Your task to perform on an android device: Go to Reddit.com Image 0: 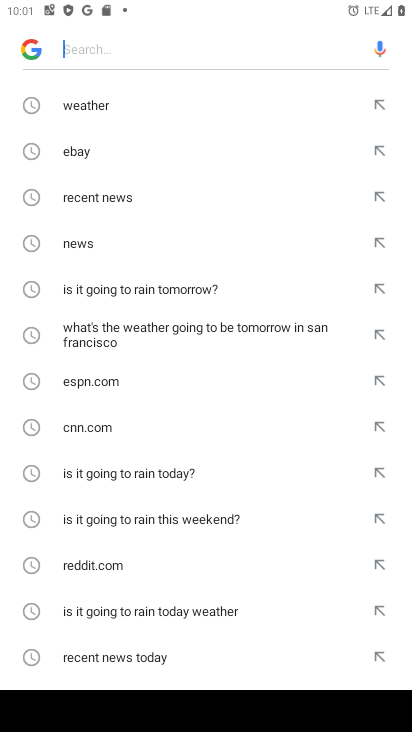
Step 0: press home button
Your task to perform on an android device: Go to Reddit.com Image 1: 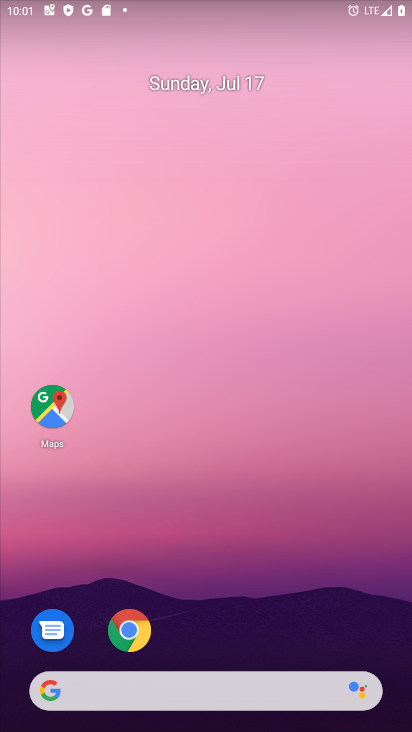
Step 1: drag from (233, 644) to (281, 87)
Your task to perform on an android device: Go to Reddit.com Image 2: 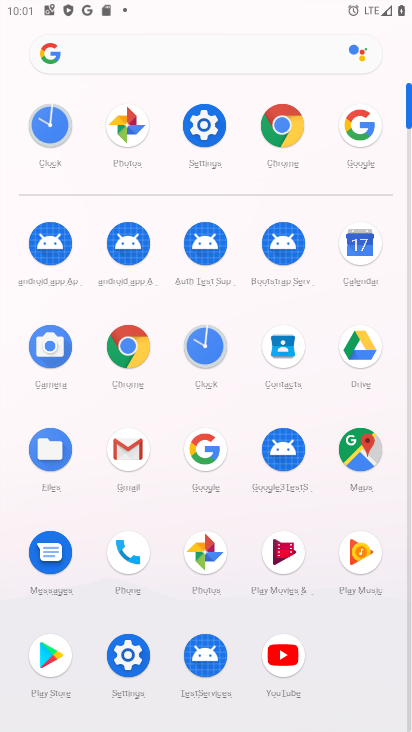
Step 2: click (279, 118)
Your task to perform on an android device: Go to Reddit.com Image 3: 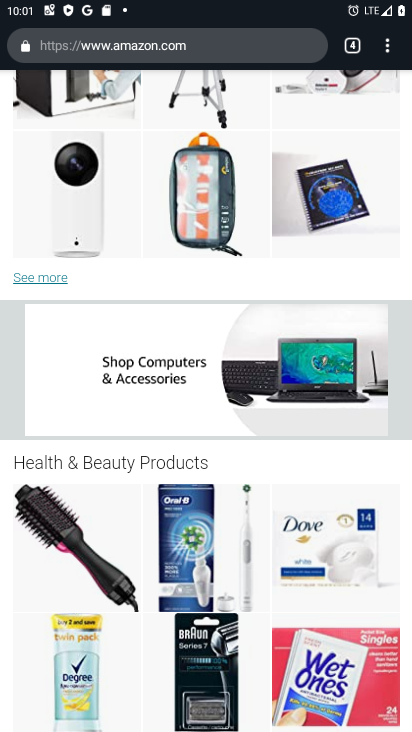
Step 3: click (351, 43)
Your task to perform on an android device: Go to Reddit.com Image 4: 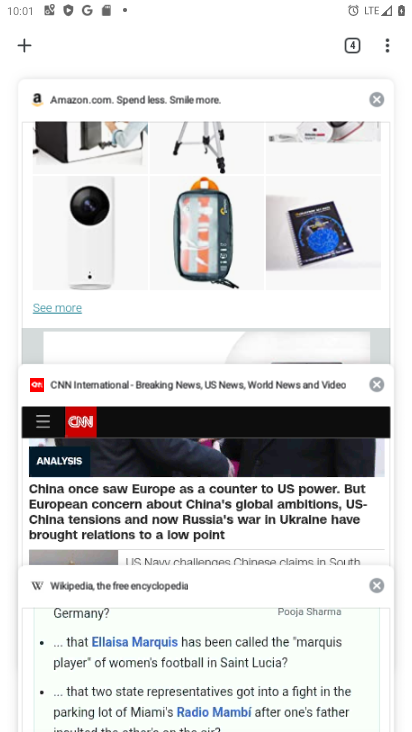
Step 4: click (375, 95)
Your task to perform on an android device: Go to Reddit.com Image 5: 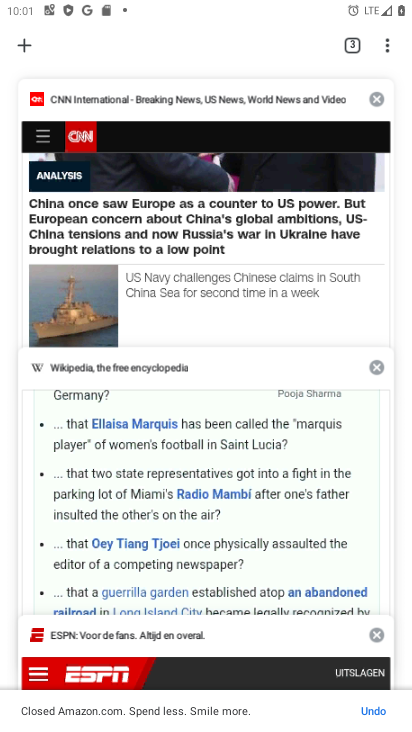
Step 5: click (375, 95)
Your task to perform on an android device: Go to Reddit.com Image 6: 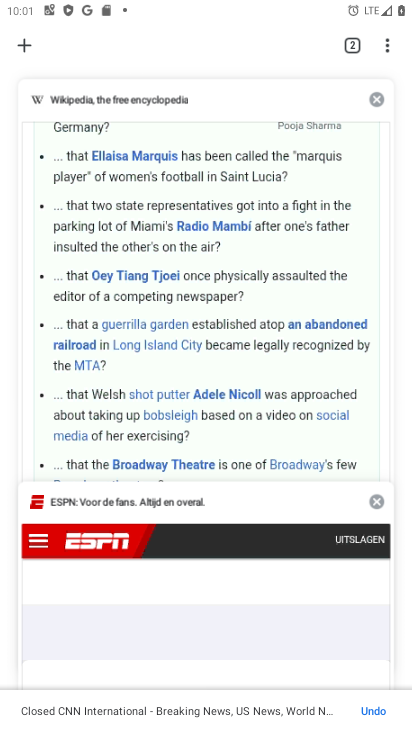
Step 6: click (375, 95)
Your task to perform on an android device: Go to Reddit.com Image 7: 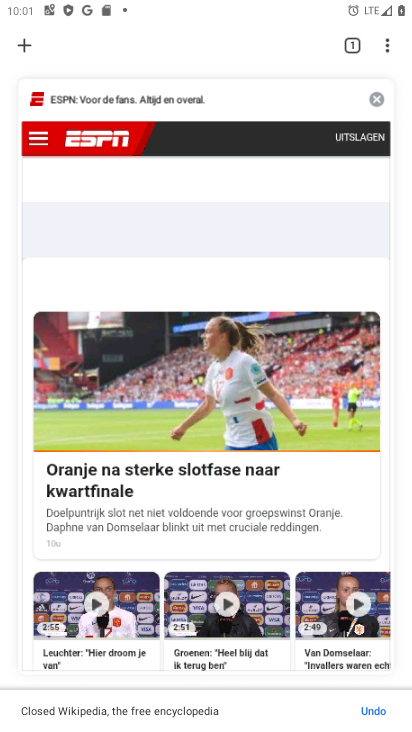
Step 7: click (375, 95)
Your task to perform on an android device: Go to Reddit.com Image 8: 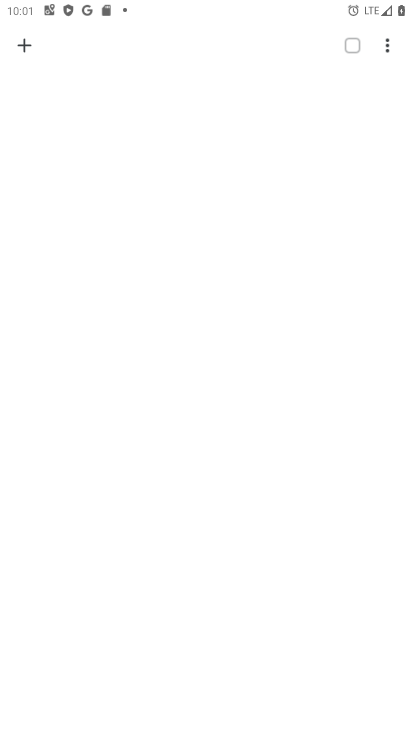
Step 8: click (28, 48)
Your task to perform on an android device: Go to Reddit.com Image 9: 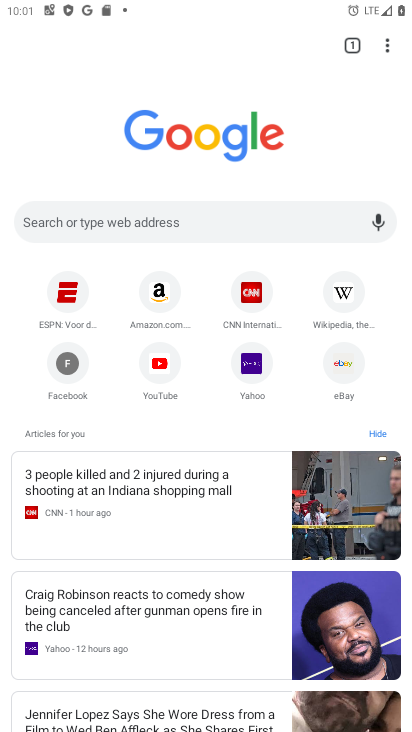
Step 9: click (141, 208)
Your task to perform on an android device: Go to Reddit.com Image 10: 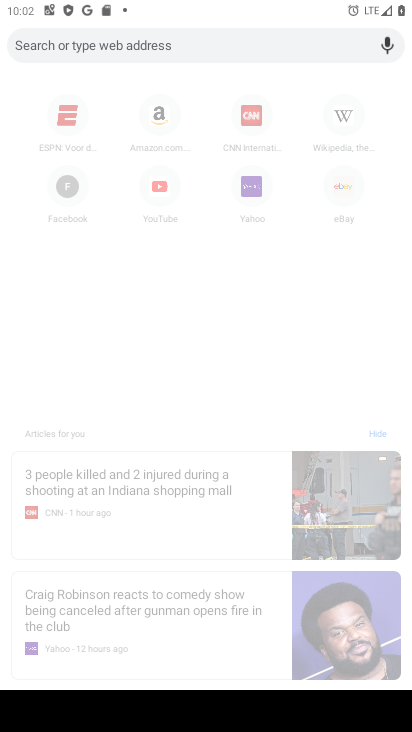
Step 10: type "reddit.com"
Your task to perform on an android device: Go to Reddit.com Image 11: 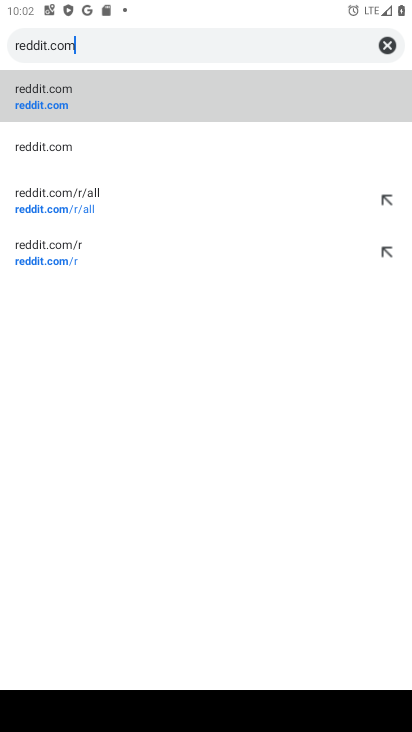
Step 11: click (77, 97)
Your task to perform on an android device: Go to Reddit.com Image 12: 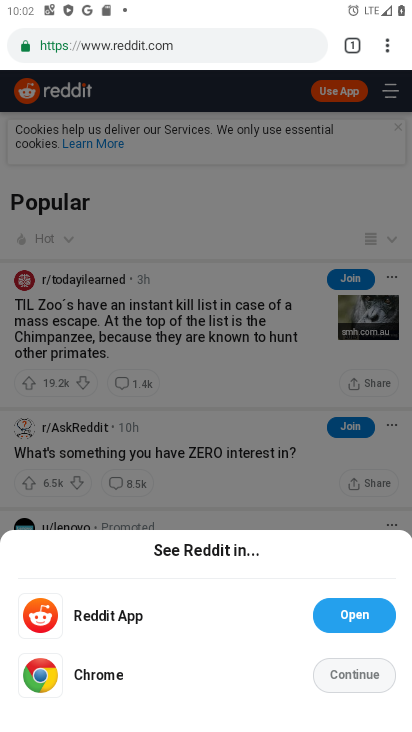
Step 12: click (348, 678)
Your task to perform on an android device: Go to Reddit.com Image 13: 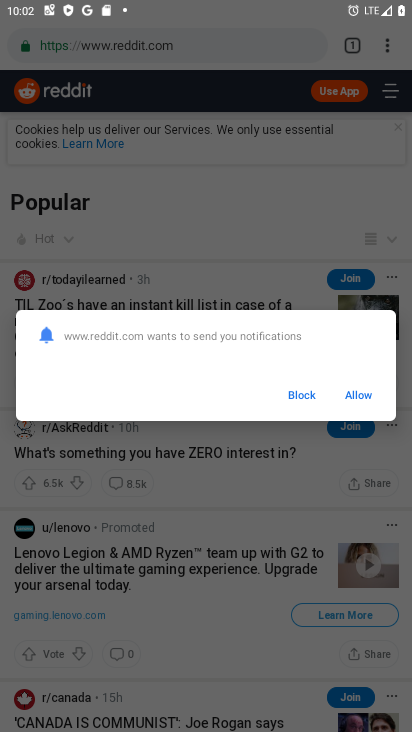
Step 13: click (361, 388)
Your task to perform on an android device: Go to Reddit.com Image 14: 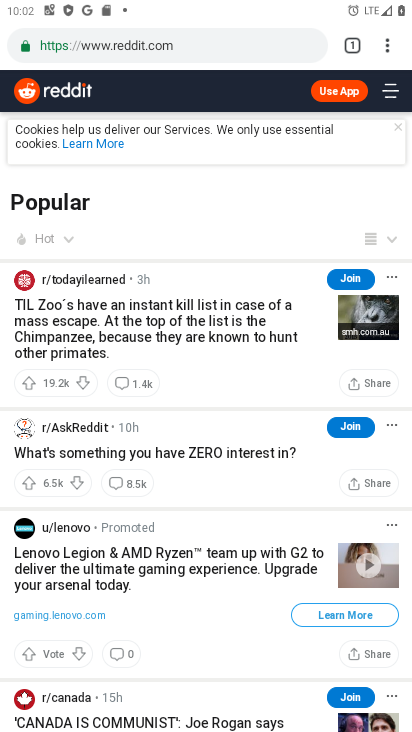
Step 14: task complete